Your task to perform on an android device: Open Google Chrome Image 0: 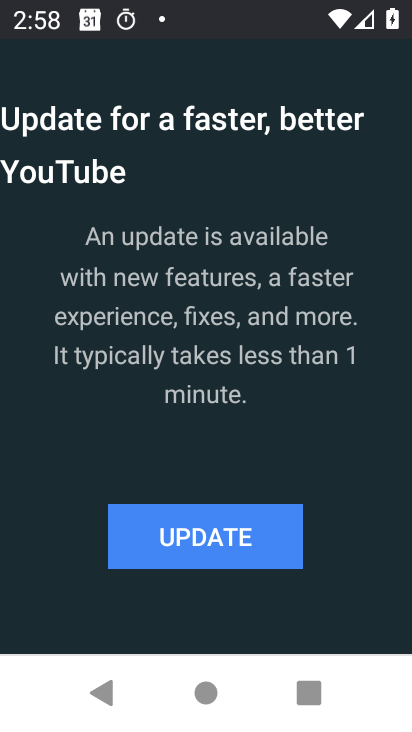
Step 0: press back button
Your task to perform on an android device: Open Google Chrome Image 1: 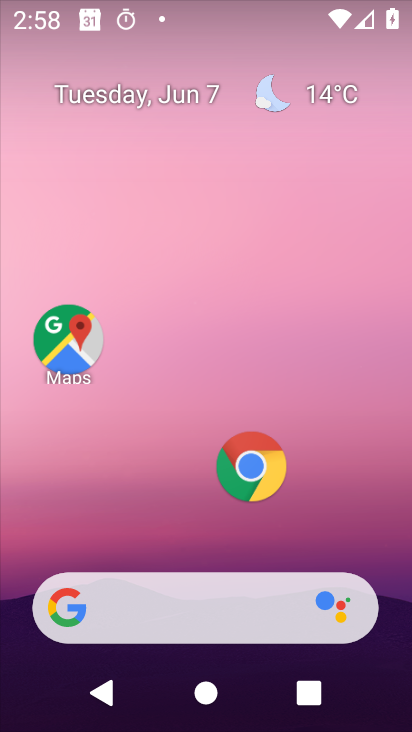
Step 1: click (264, 480)
Your task to perform on an android device: Open Google Chrome Image 2: 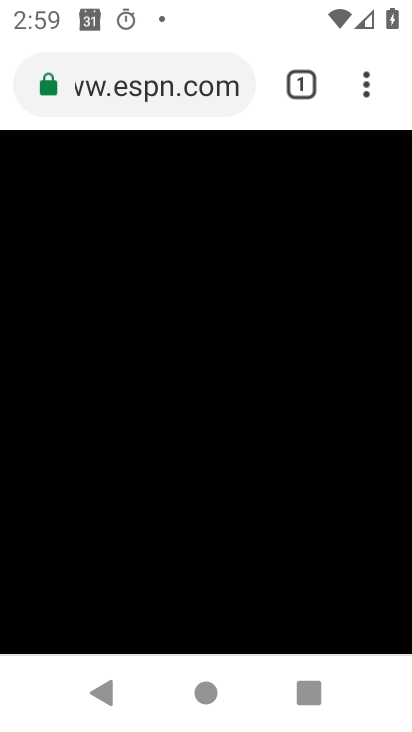
Step 2: task complete